Your task to perform on an android device: Open network settings Image 0: 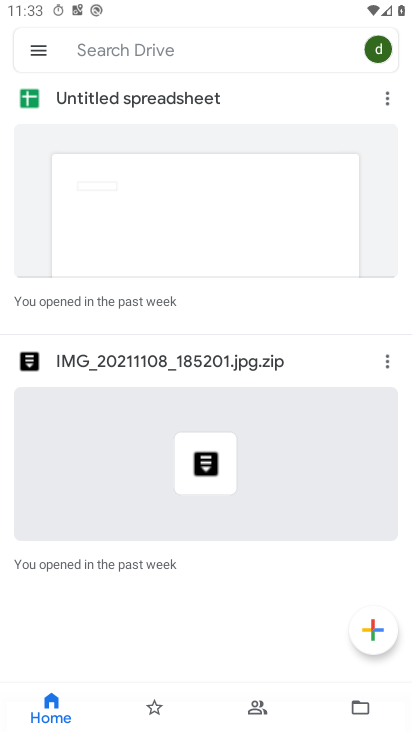
Step 0: press home button
Your task to perform on an android device: Open network settings Image 1: 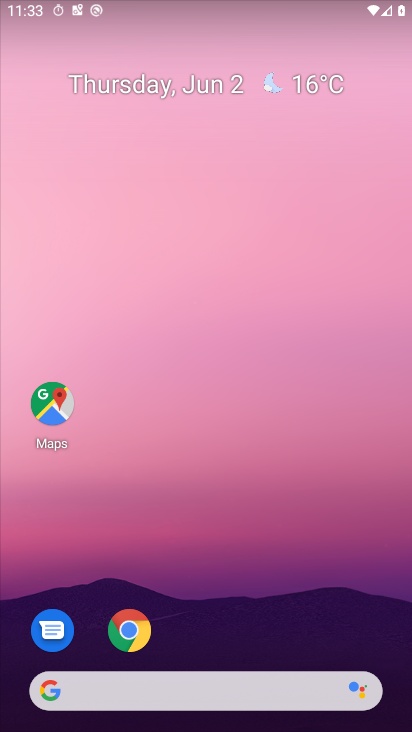
Step 1: drag from (197, 621) to (312, 80)
Your task to perform on an android device: Open network settings Image 2: 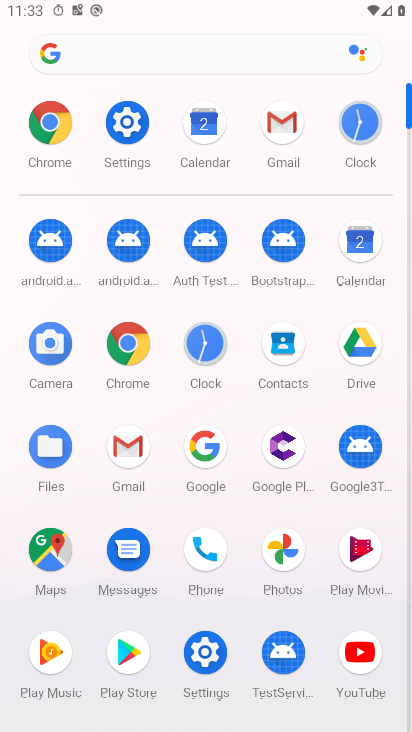
Step 2: click (134, 150)
Your task to perform on an android device: Open network settings Image 3: 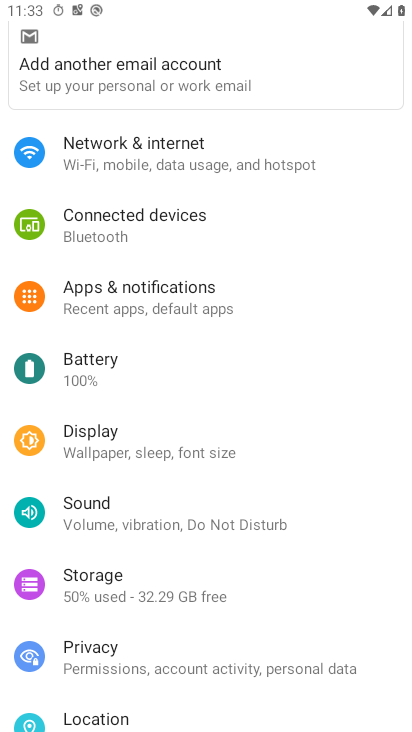
Step 3: click (153, 160)
Your task to perform on an android device: Open network settings Image 4: 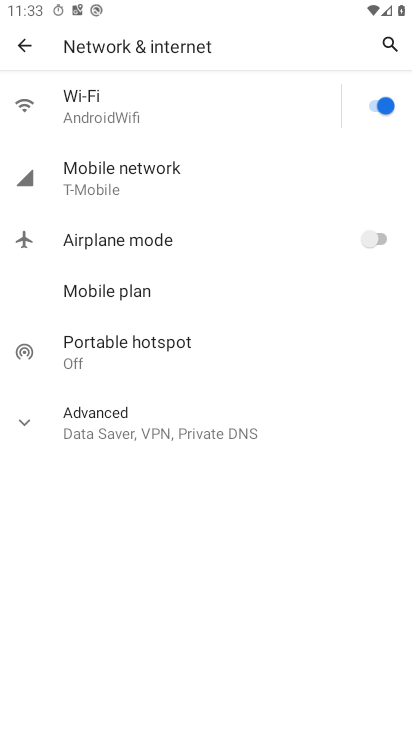
Step 4: task complete